Your task to perform on an android device: Search for sushi restaurants on Maps Image 0: 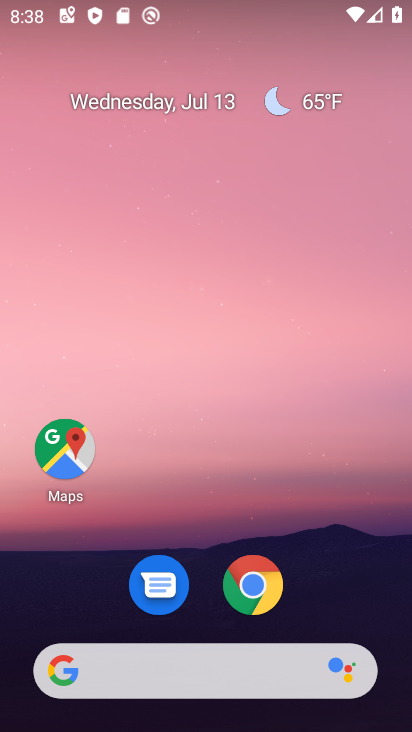
Step 0: click (67, 451)
Your task to perform on an android device: Search for sushi restaurants on Maps Image 1: 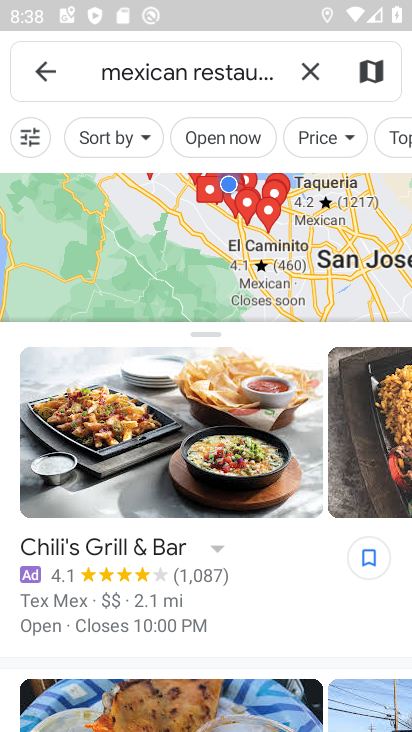
Step 1: click (308, 67)
Your task to perform on an android device: Search for sushi restaurants on Maps Image 2: 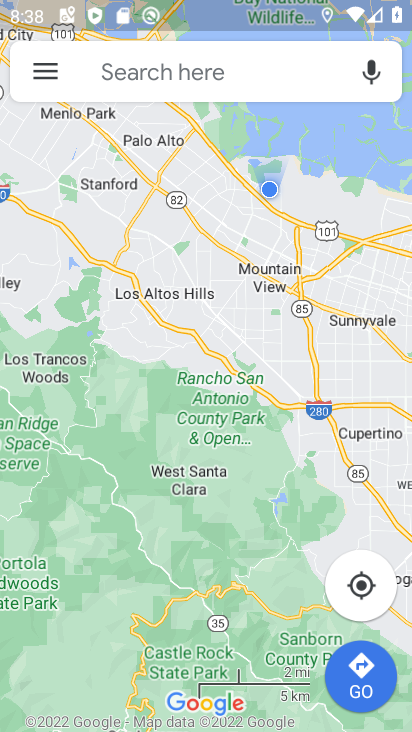
Step 2: click (190, 74)
Your task to perform on an android device: Search for sushi restaurants on Maps Image 3: 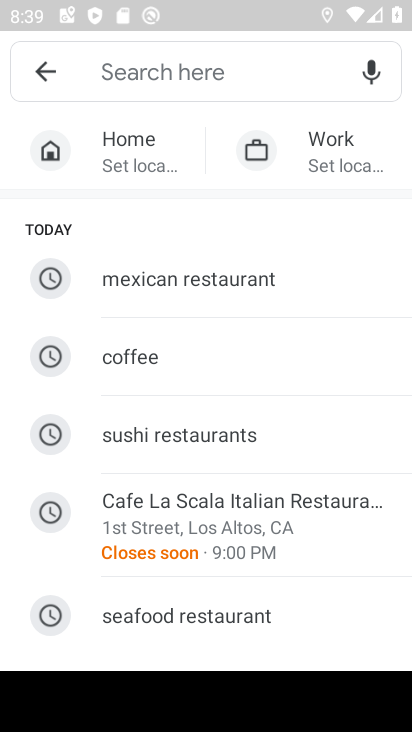
Step 3: click (191, 429)
Your task to perform on an android device: Search for sushi restaurants on Maps Image 4: 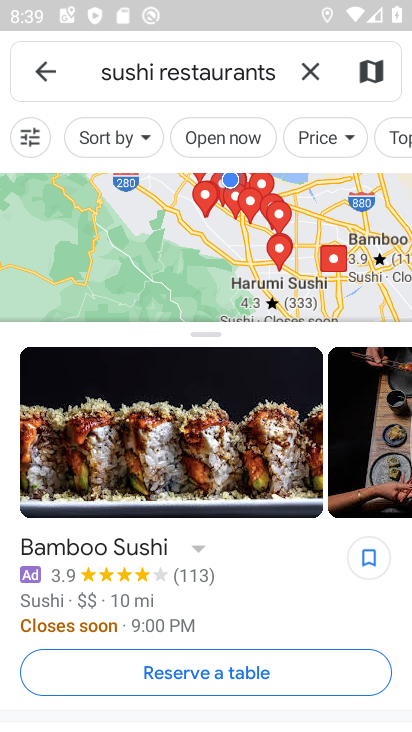
Step 4: task complete